Your task to perform on an android device: Open CNN.com Image 0: 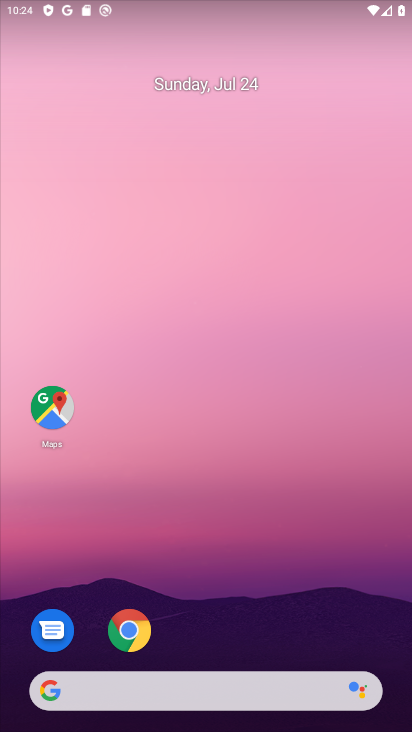
Step 0: click (46, 691)
Your task to perform on an android device: Open CNN.com Image 1: 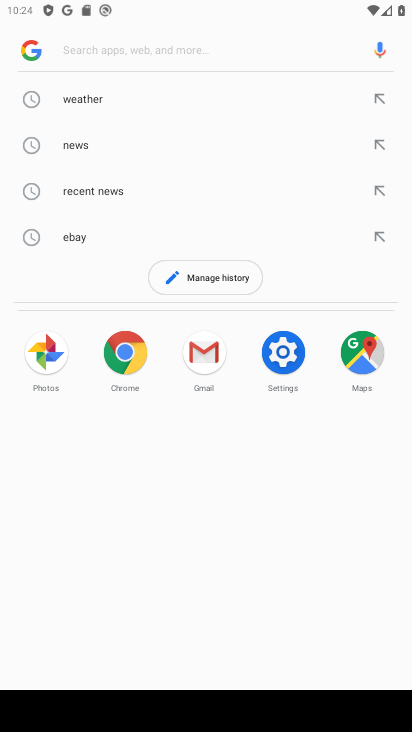
Step 1: type " CNN.com"
Your task to perform on an android device: Open CNN.com Image 2: 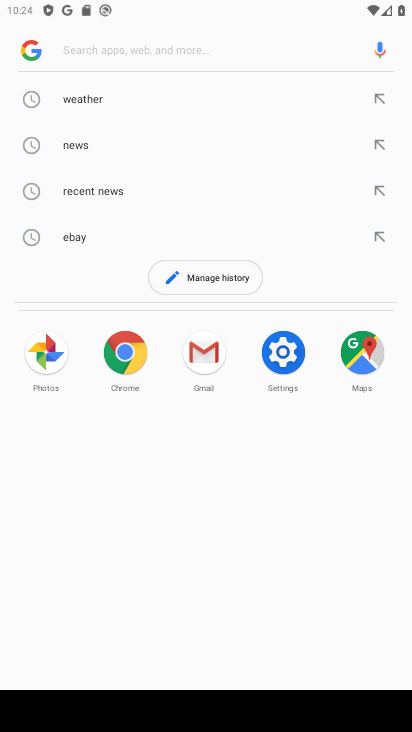
Step 2: click (82, 41)
Your task to perform on an android device: Open CNN.com Image 3: 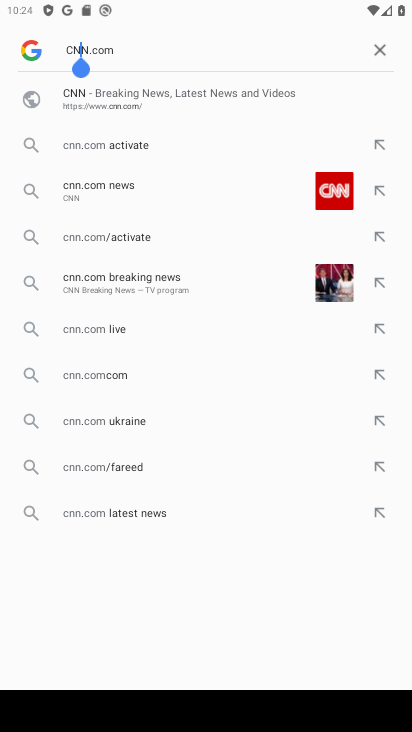
Step 3: click (323, 191)
Your task to perform on an android device: Open CNN.com Image 4: 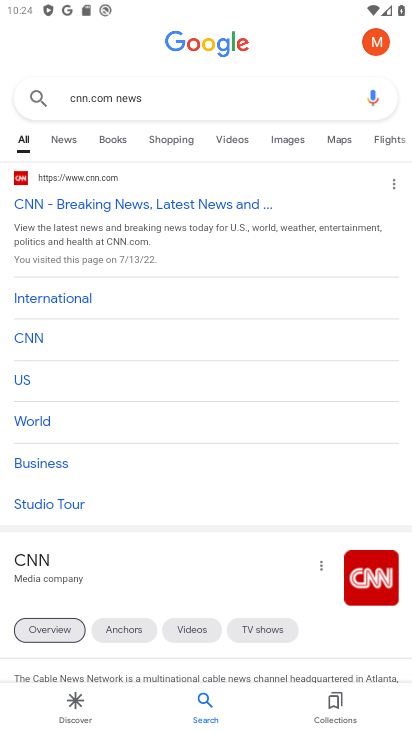
Step 4: click (63, 204)
Your task to perform on an android device: Open CNN.com Image 5: 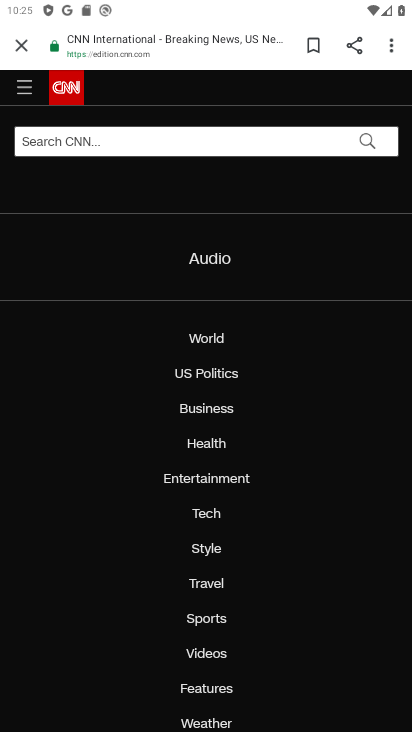
Step 5: task complete